Your task to perform on an android device: stop showing notifications on the lock screen Image 0: 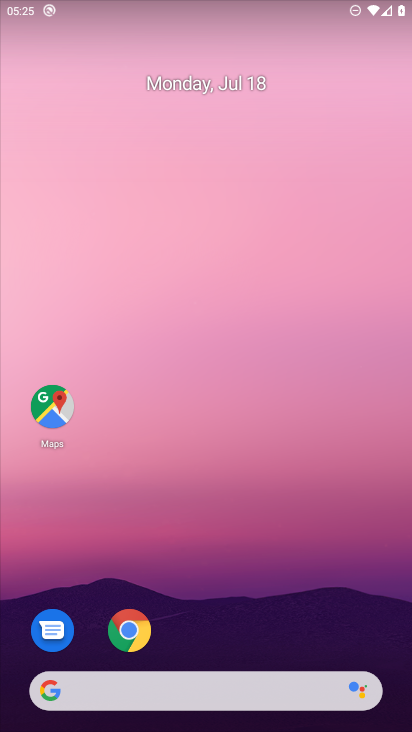
Step 0: drag from (206, 646) to (236, 166)
Your task to perform on an android device: stop showing notifications on the lock screen Image 1: 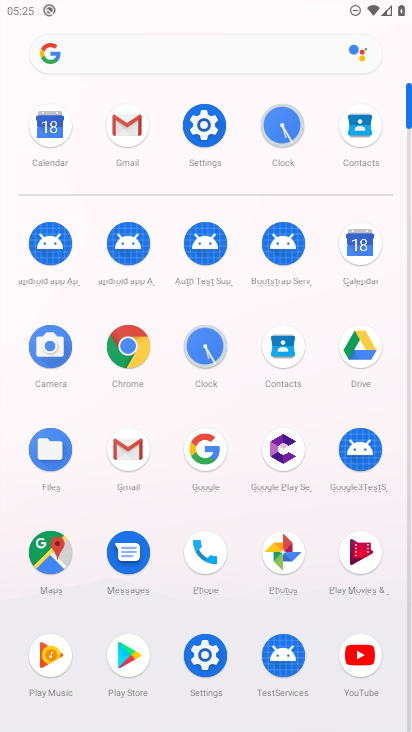
Step 1: click (203, 112)
Your task to perform on an android device: stop showing notifications on the lock screen Image 2: 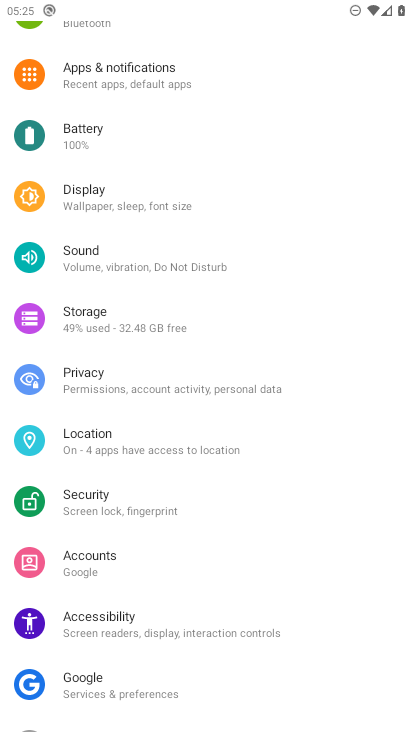
Step 2: click (183, 65)
Your task to perform on an android device: stop showing notifications on the lock screen Image 3: 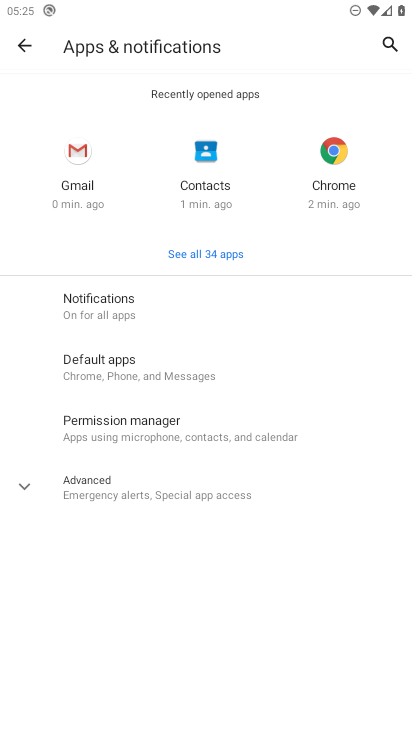
Step 3: click (159, 303)
Your task to perform on an android device: stop showing notifications on the lock screen Image 4: 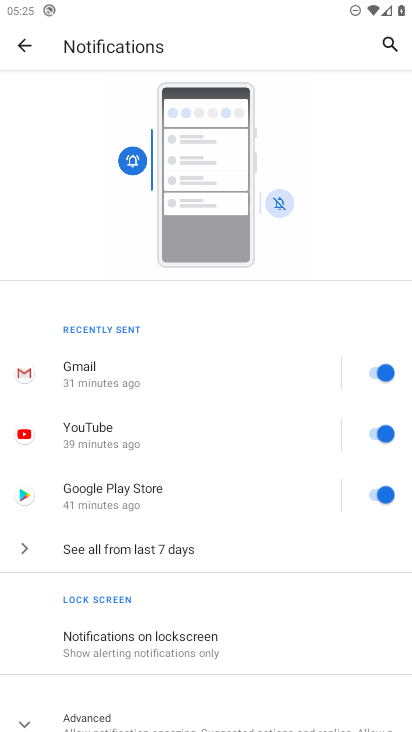
Step 4: click (242, 639)
Your task to perform on an android device: stop showing notifications on the lock screen Image 5: 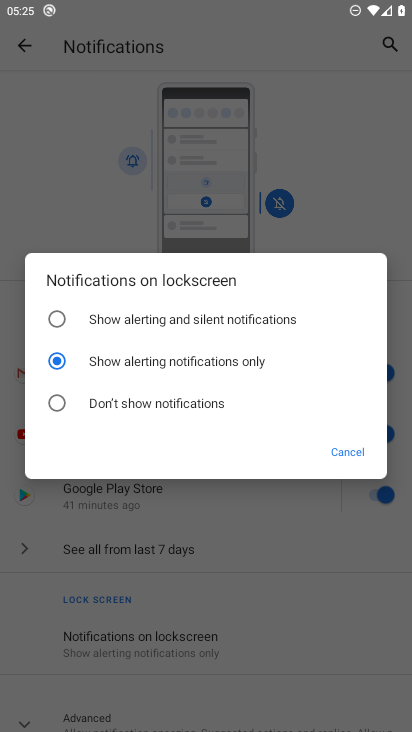
Step 5: click (57, 317)
Your task to perform on an android device: stop showing notifications on the lock screen Image 6: 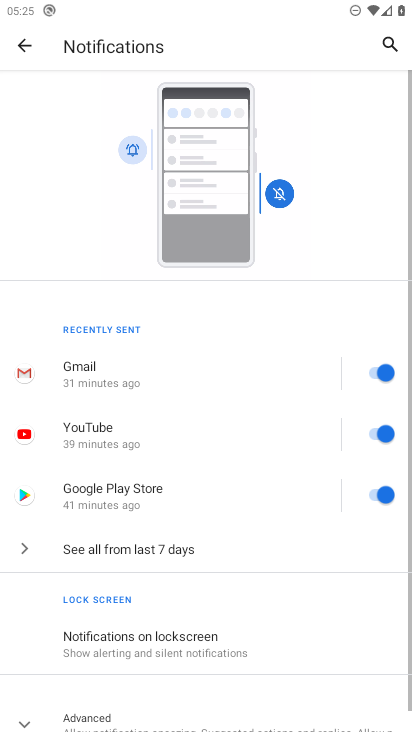
Step 6: task complete